Your task to perform on an android device: Go to sound settings Image 0: 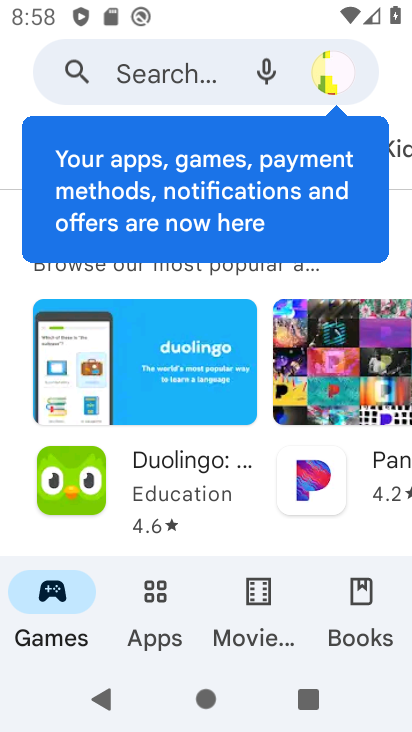
Step 0: press home button
Your task to perform on an android device: Go to sound settings Image 1: 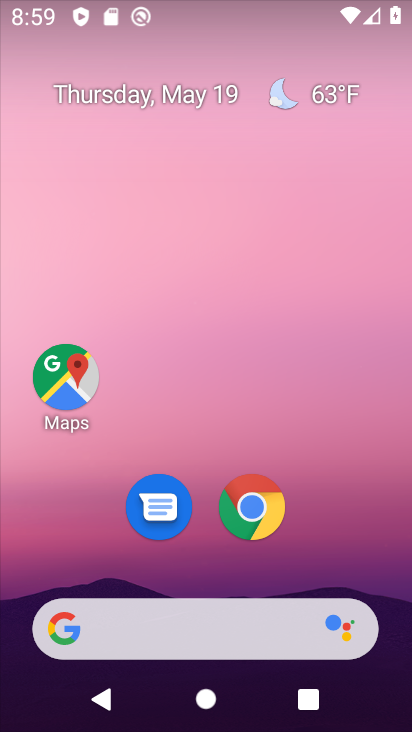
Step 1: drag from (387, 562) to (340, 88)
Your task to perform on an android device: Go to sound settings Image 2: 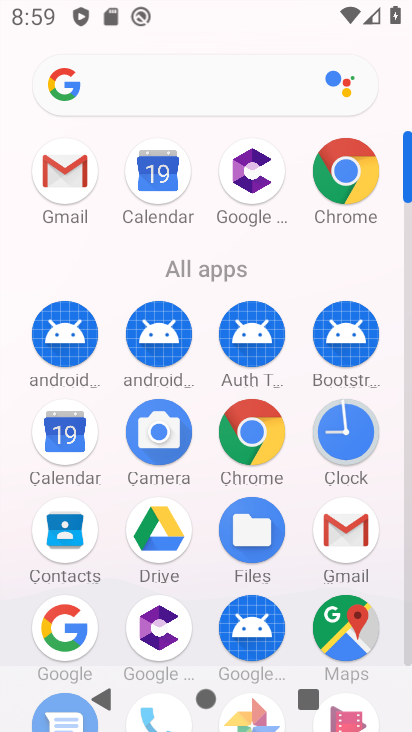
Step 2: click (409, 658)
Your task to perform on an android device: Go to sound settings Image 3: 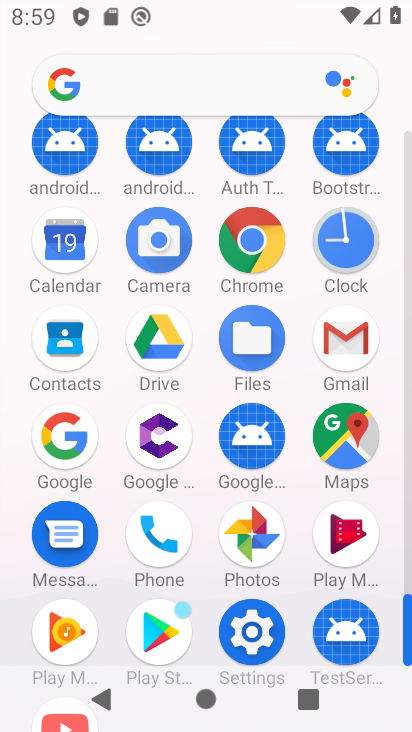
Step 3: click (270, 639)
Your task to perform on an android device: Go to sound settings Image 4: 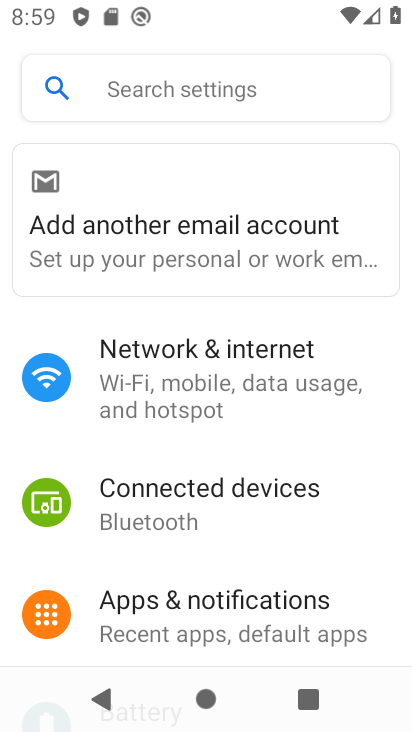
Step 4: drag from (343, 561) to (314, 215)
Your task to perform on an android device: Go to sound settings Image 5: 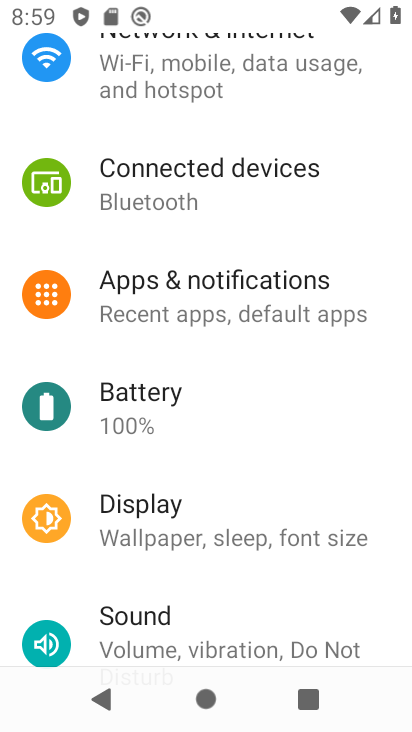
Step 5: click (276, 628)
Your task to perform on an android device: Go to sound settings Image 6: 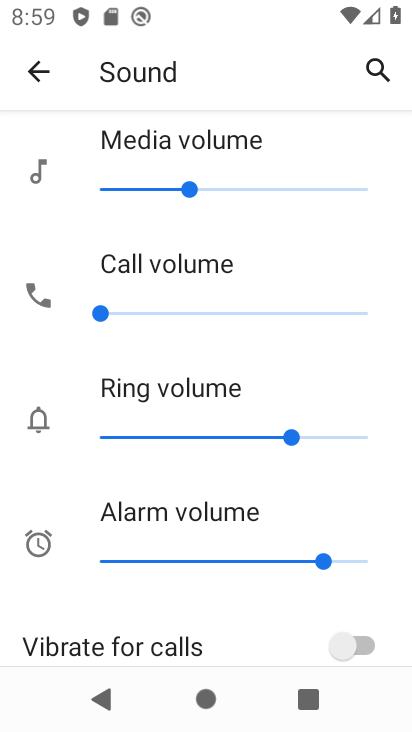
Step 6: task complete